Your task to perform on an android device: What's on my calendar today? Image 0: 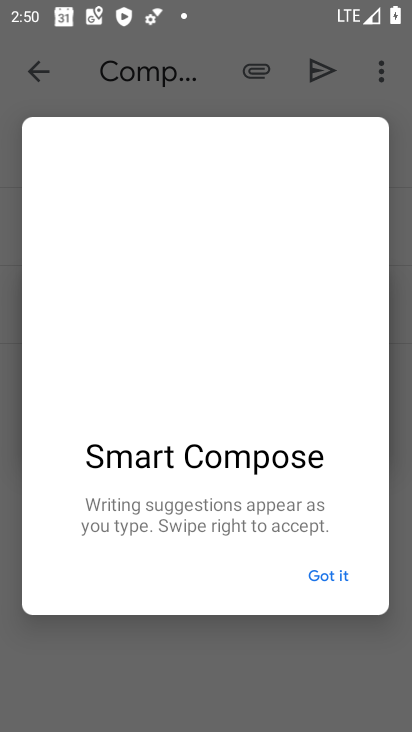
Step 0: press home button
Your task to perform on an android device: What's on my calendar today? Image 1: 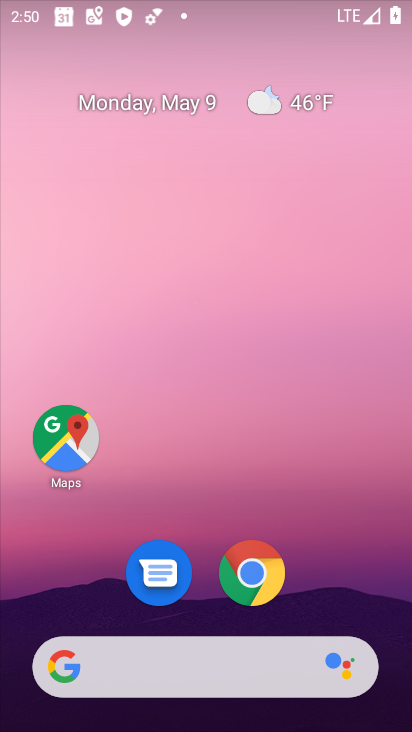
Step 1: drag from (199, 604) to (221, 193)
Your task to perform on an android device: What's on my calendar today? Image 2: 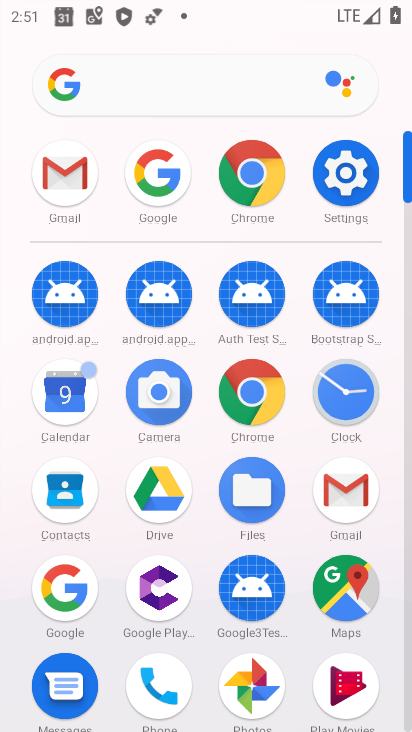
Step 2: click (77, 408)
Your task to perform on an android device: What's on my calendar today? Image 3: 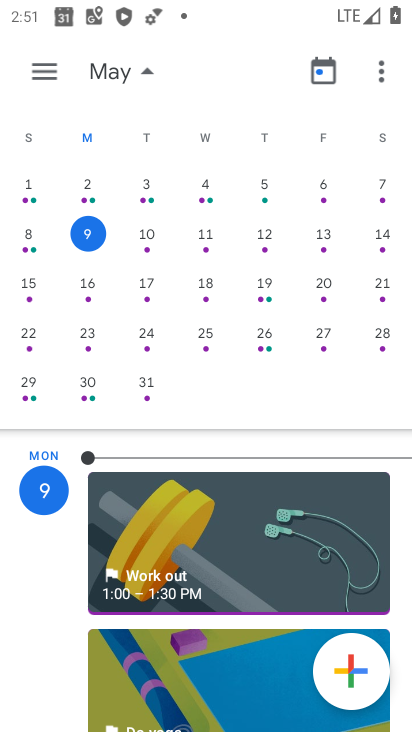
Step 3: click (90, 234)
Your task to perform on an android device: What's on my calendar today? Image 4: 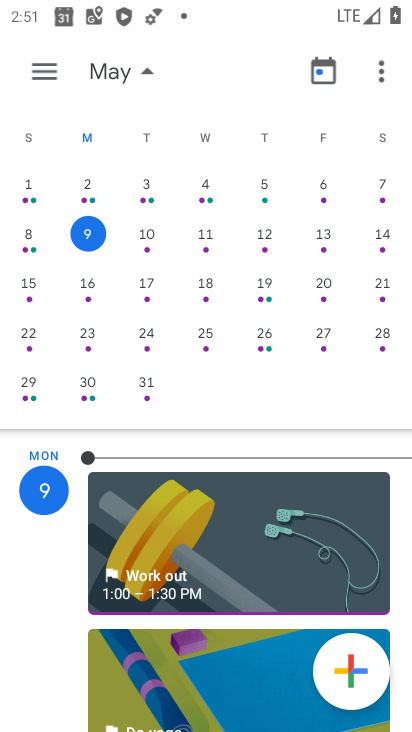
Step 4: task complete